Your task to perform on an android device: turn on airplane mode Image 0: 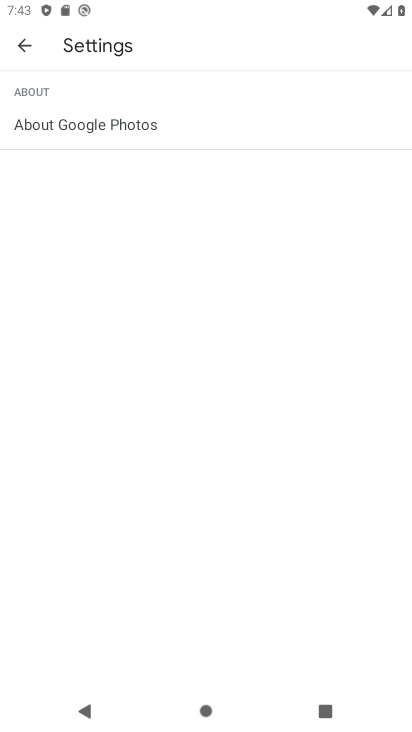
Step 0: press home button
Your task to perform on an android device: turn on airplane mode Image 1: 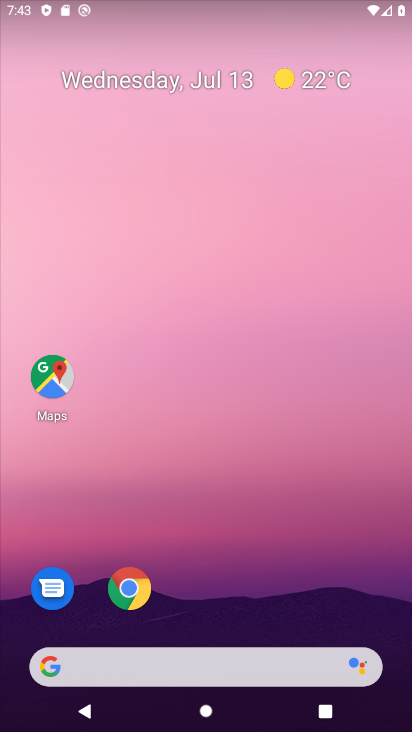
Step 1: drag from (280, 568) to (287, 184)
Your task to perform on an android device: turn on airplane mode Image 2: 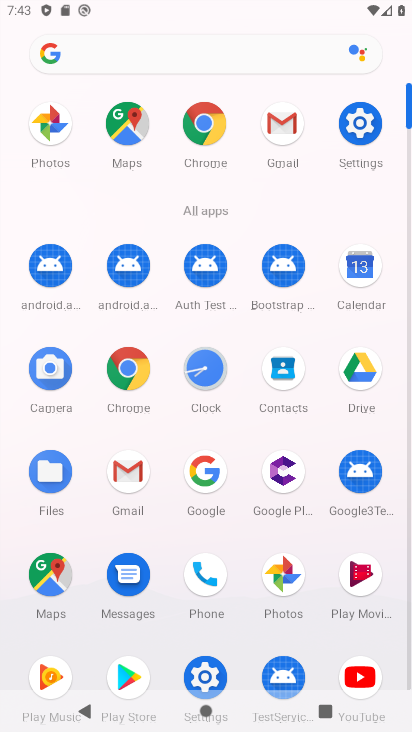
Step 2: click (346, 130)
Your task to perform on an android device: turn on airplane mode Image 3: 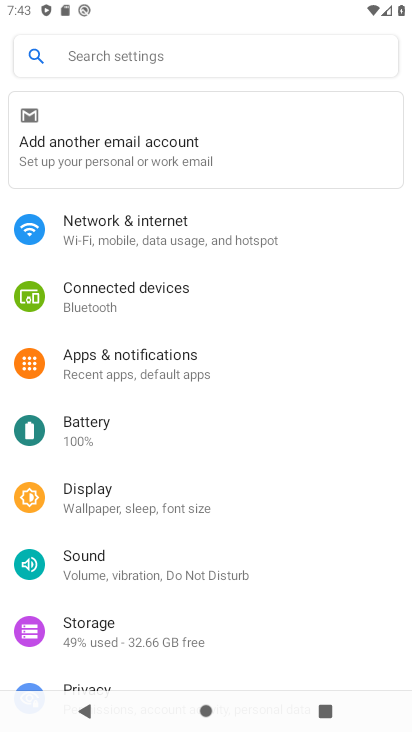
Step 3: click (184, 226)
Your task to perform on an android device: turn on airplane mode Image 4: 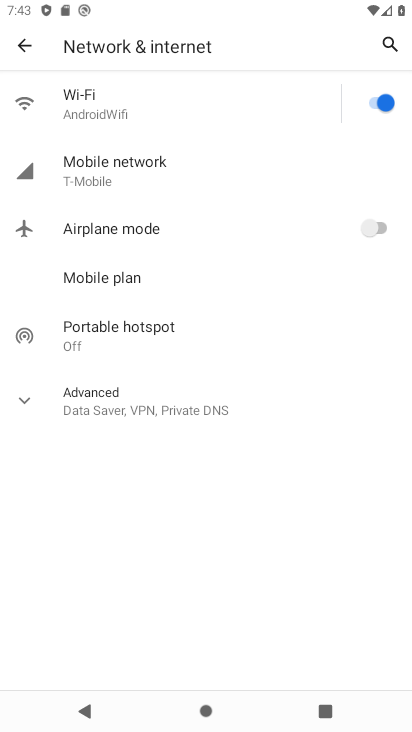
Step 4: click (360, 234)
Your task to perform on an android device: turn on airplane mode Image 5: 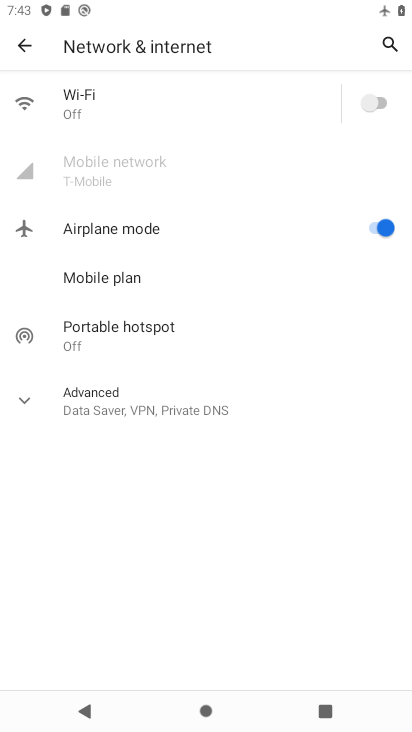
Step 5: task complete